Your task to perform on an android device: open app "Move to iOS" (install if not already installed) Image 0: 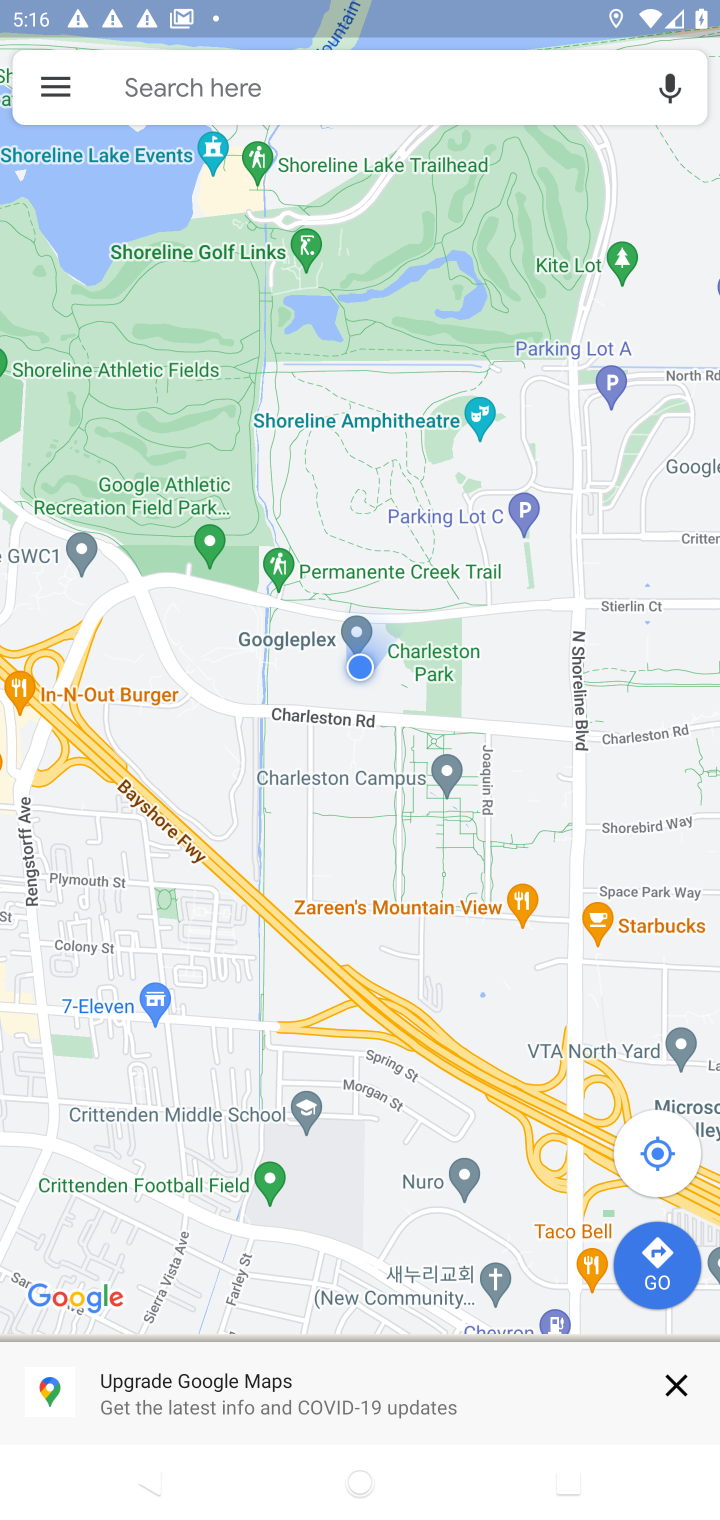
Step 0: press home button
Your task to perform on an android device: open app "Move to iOS" (install if not already installed) Image 1: 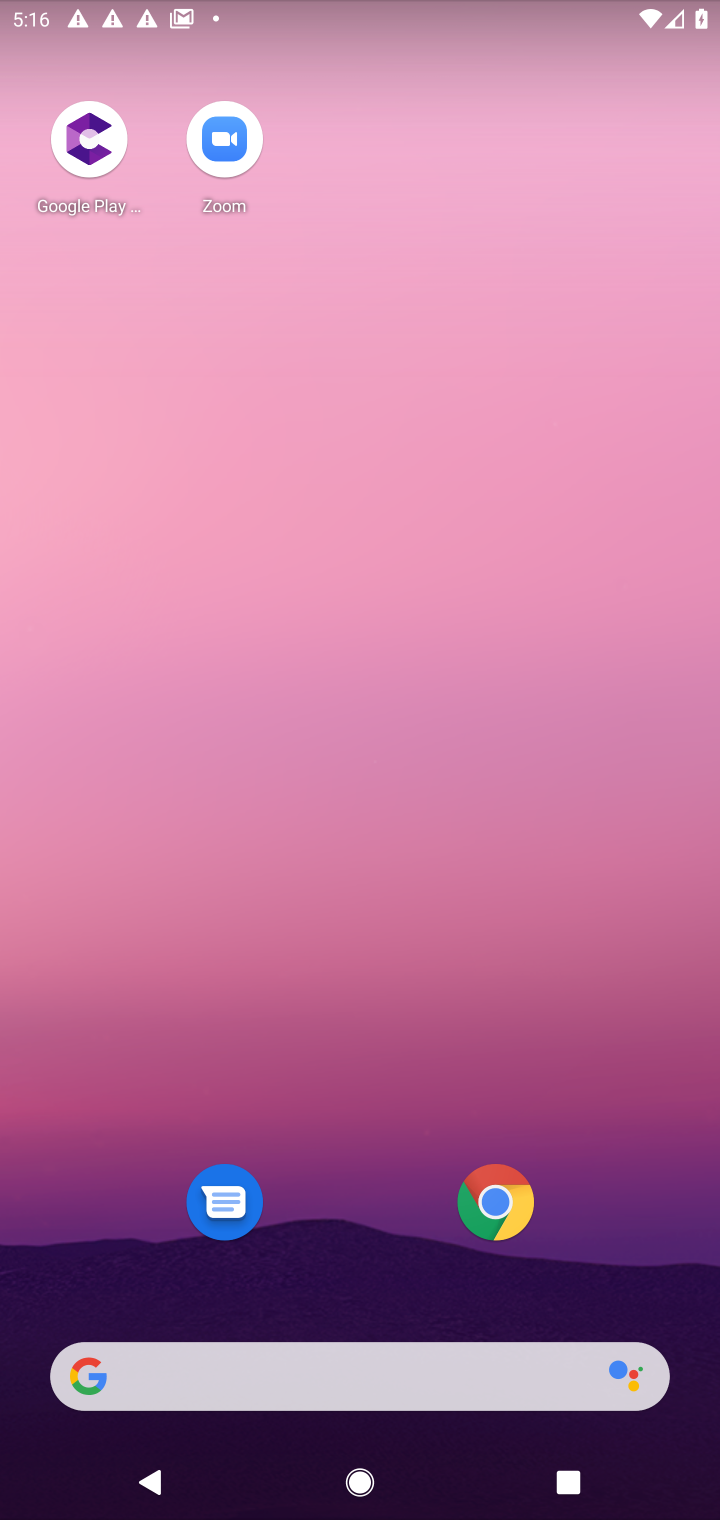
Step 1: drag from (312, 1391) to (397, 13)
Your task to perform on an android device: open app "Move to iOS" (install if not already installed) Image 2: 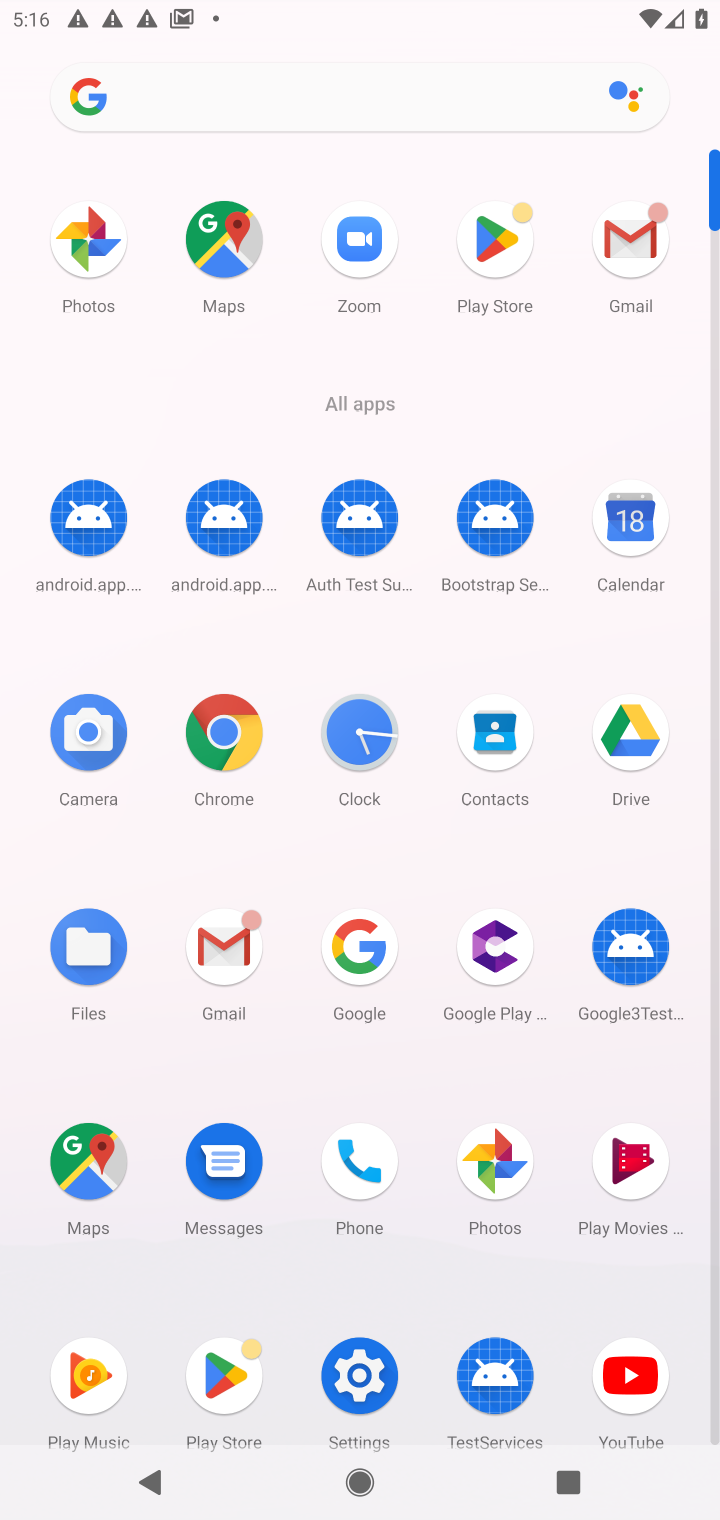
Step 2: click (510, 284)
Your task to perform on an android device: open app "Move to iOS" (install if not already installed) Image 3: 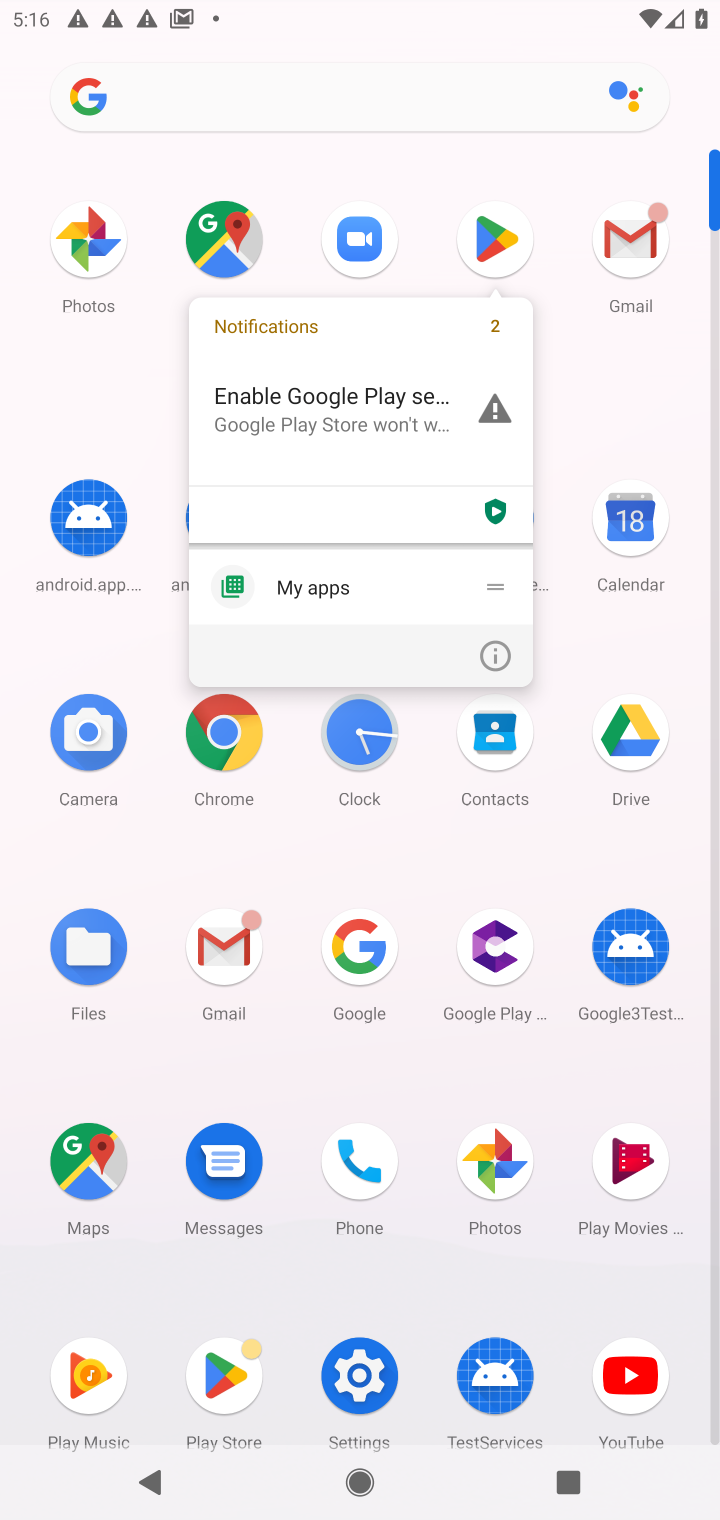
Step 3: click (510, 284)
Your task to perform on an android device: open app "Move to iOS" (install if not already installed) Image 4: 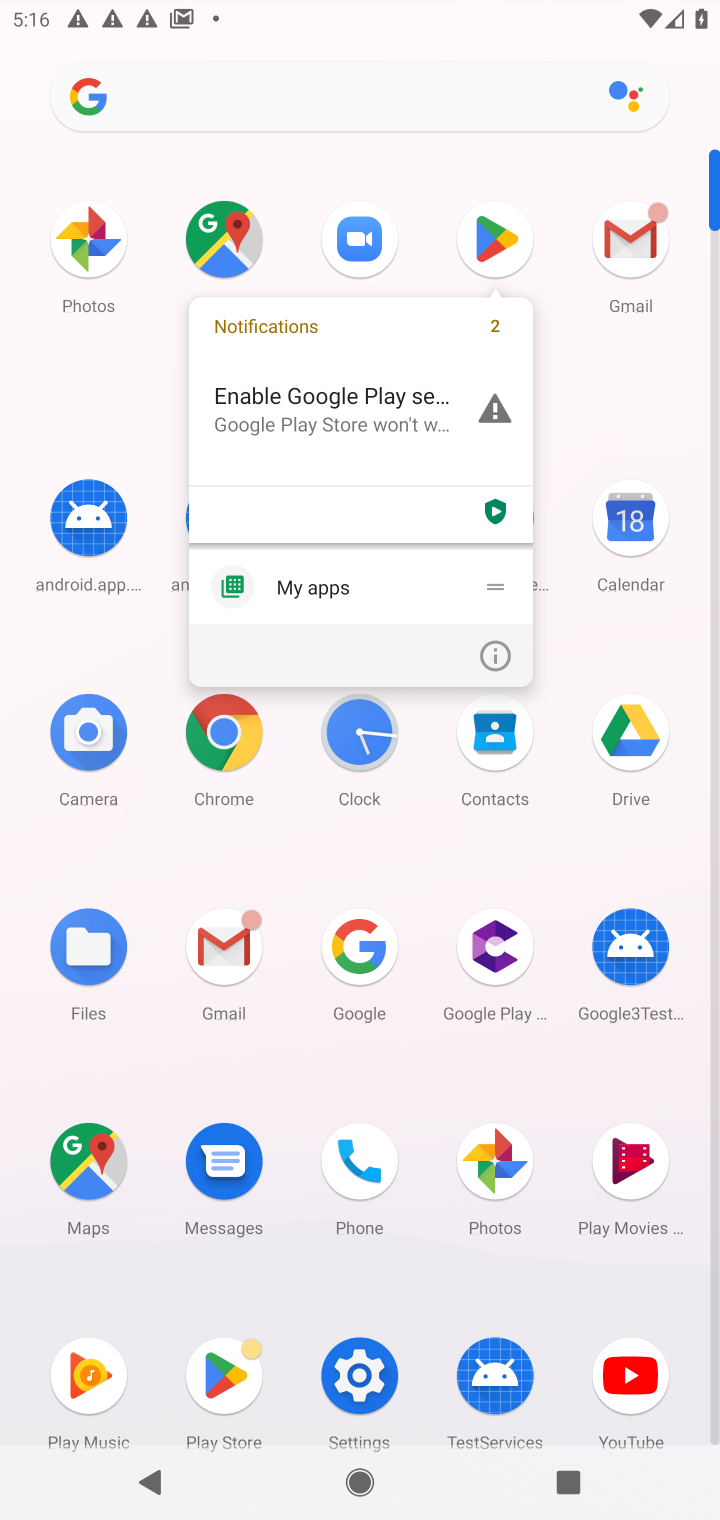
Step 4: click (479, 242)
Your task to perform on an android device: open app "Move to iOS" (install if not already installed) Image 5: 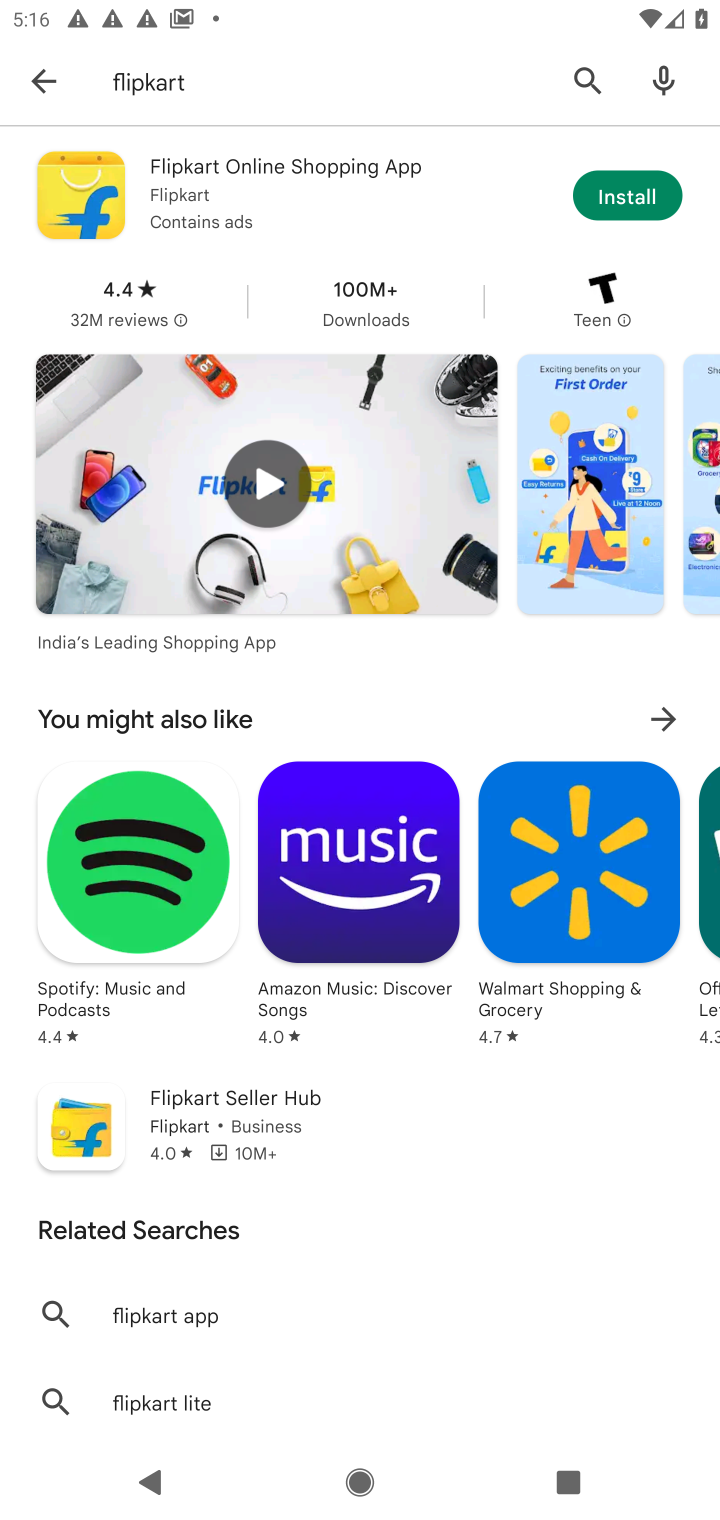
Step 5: click (594, 81)
Your task to perform on an android device: open app "Move to iOS" (install if not already installed) Image 6: 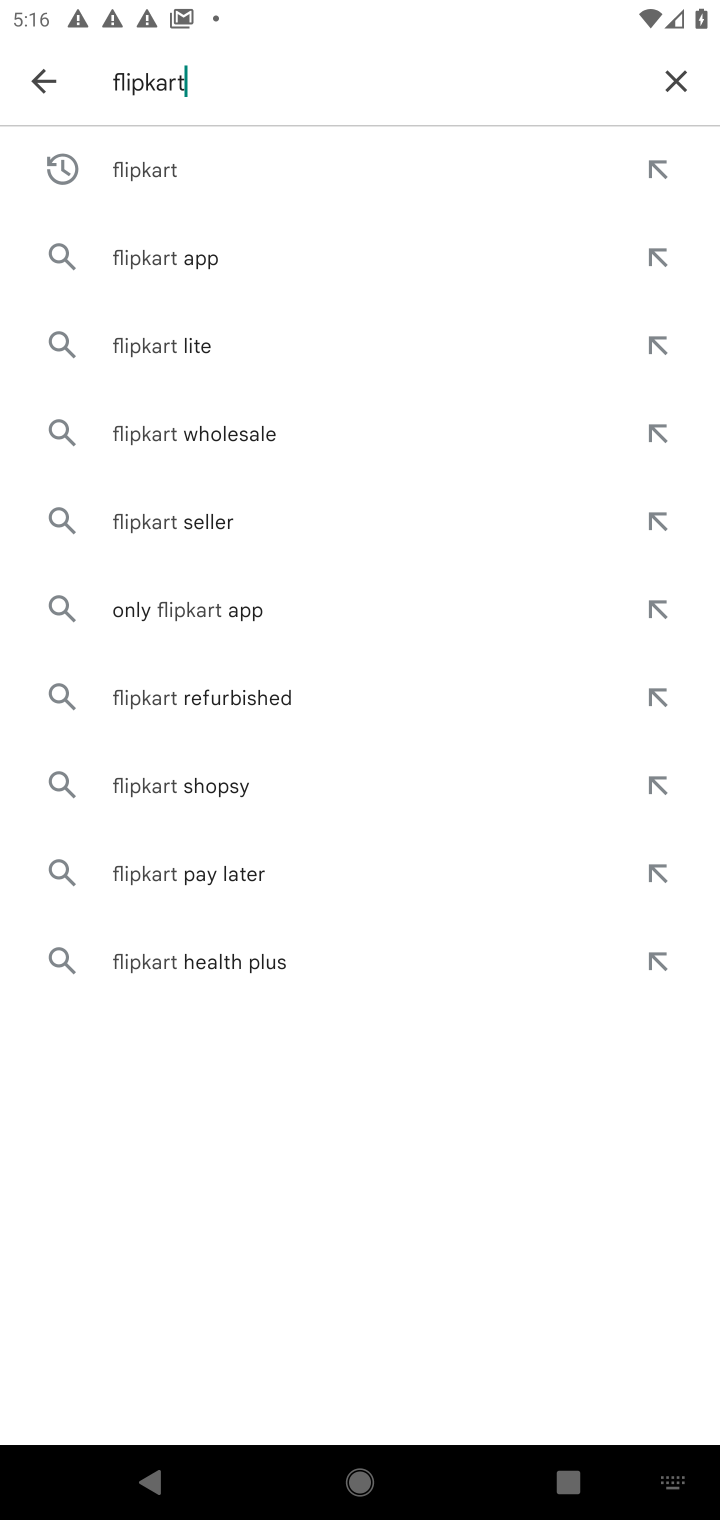
Step 6: click (670, 67)
Your task to perform on an android device: open app "Move to iOS" (install if not already installed) Image 7: 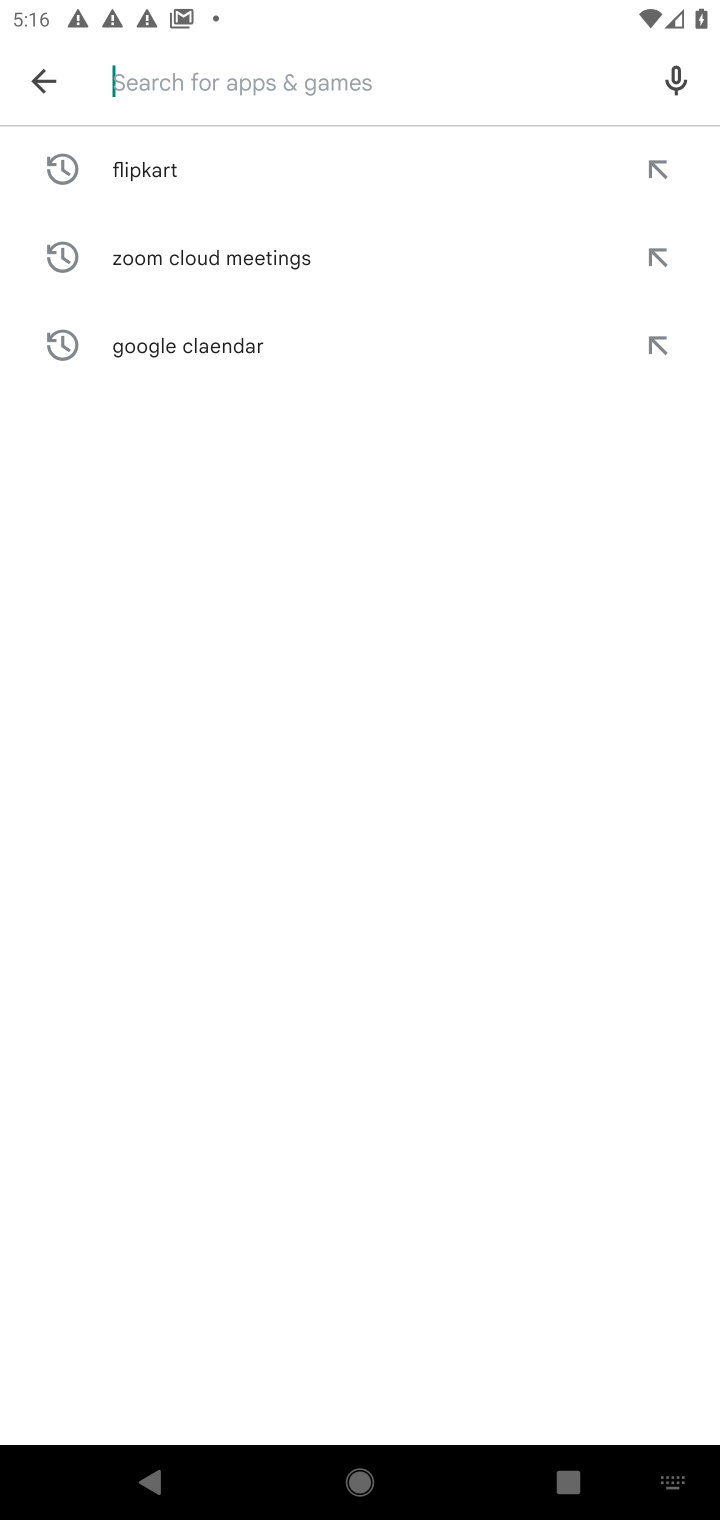
Step 7: type "move to ios"
Your task to perform on an android device: open app "Move to iOS" (install if not already installed) Image 8: 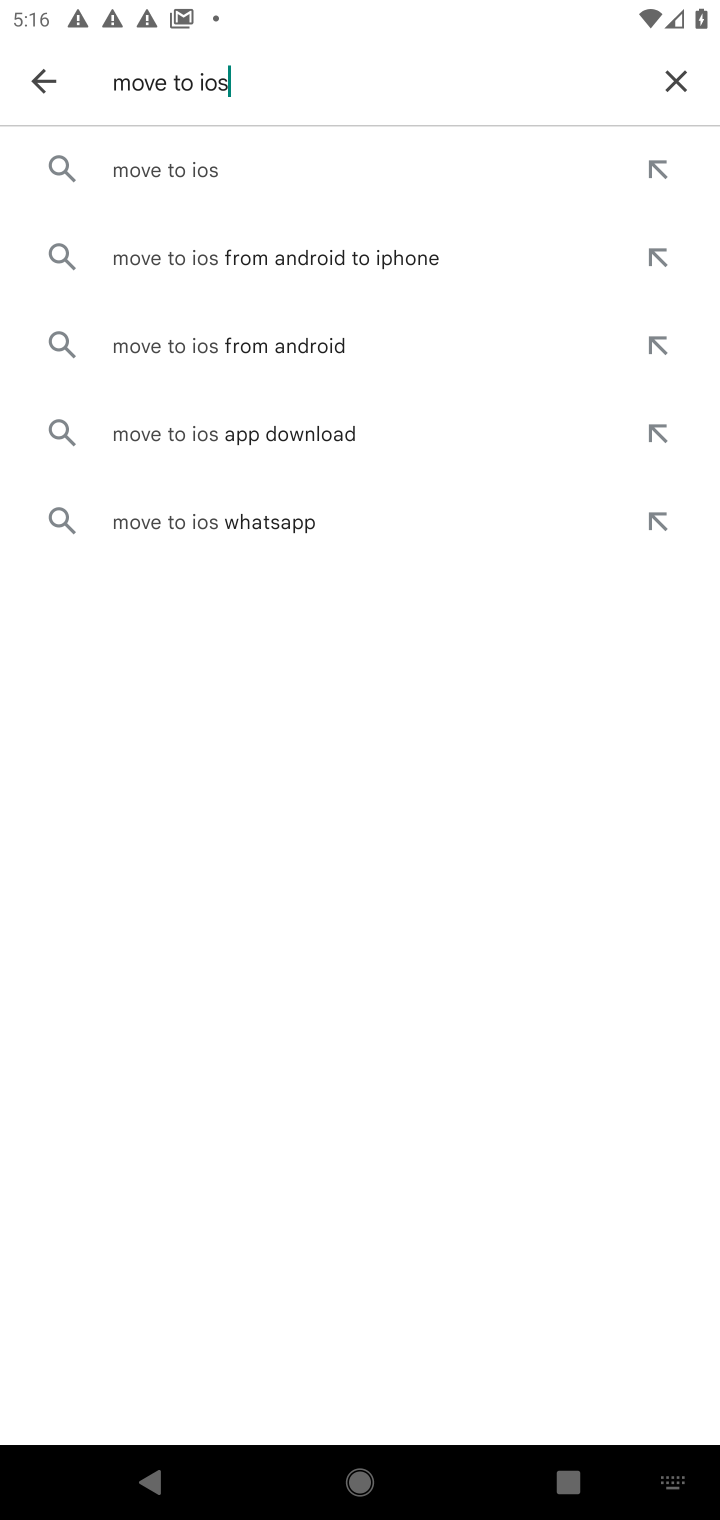
Step 8: click (218, 182)
Your task to perform on an android device: open app "Move to iOS" (install if not already installed) Image 9: 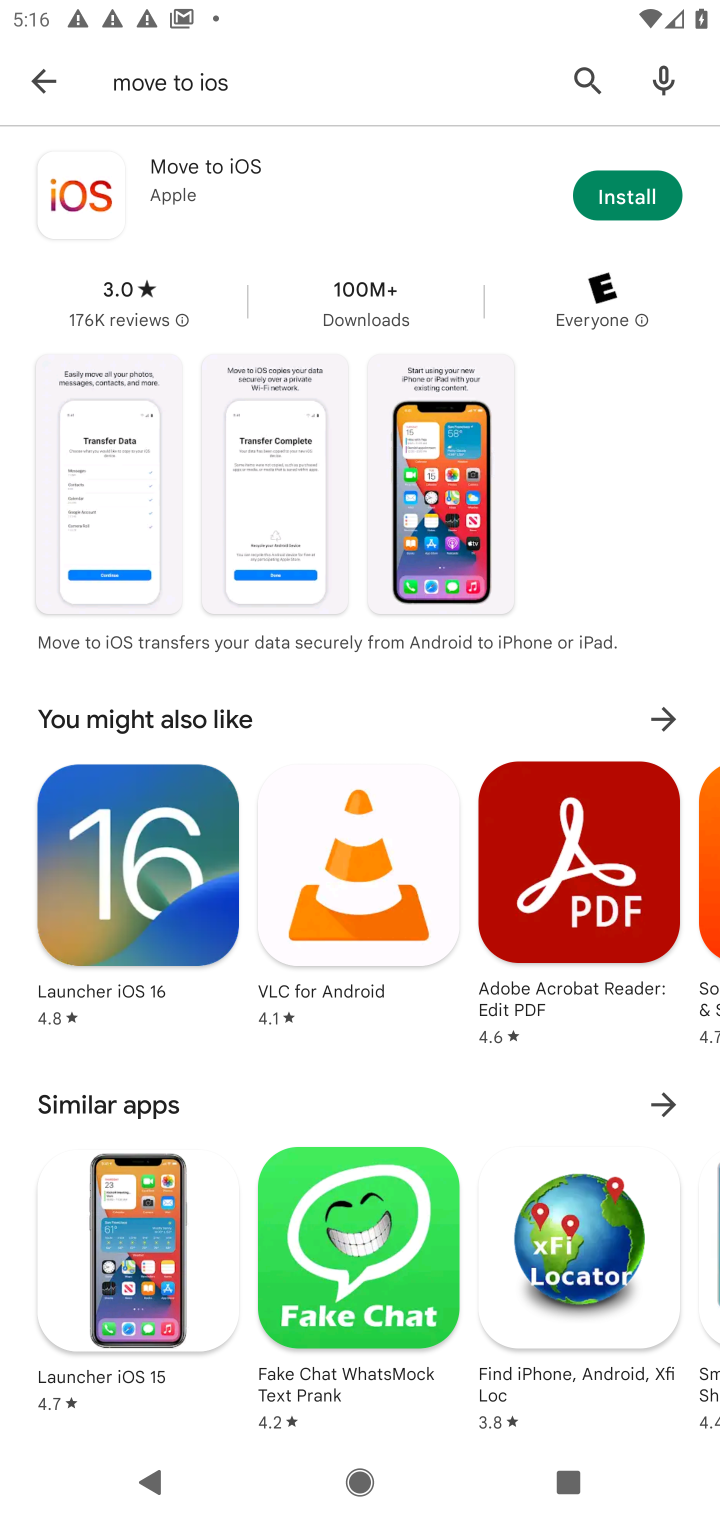
Step 9: click (585, 177)
Your task to perform on an android device: open app "Move to iOS" (install if not already installed) Image 10: 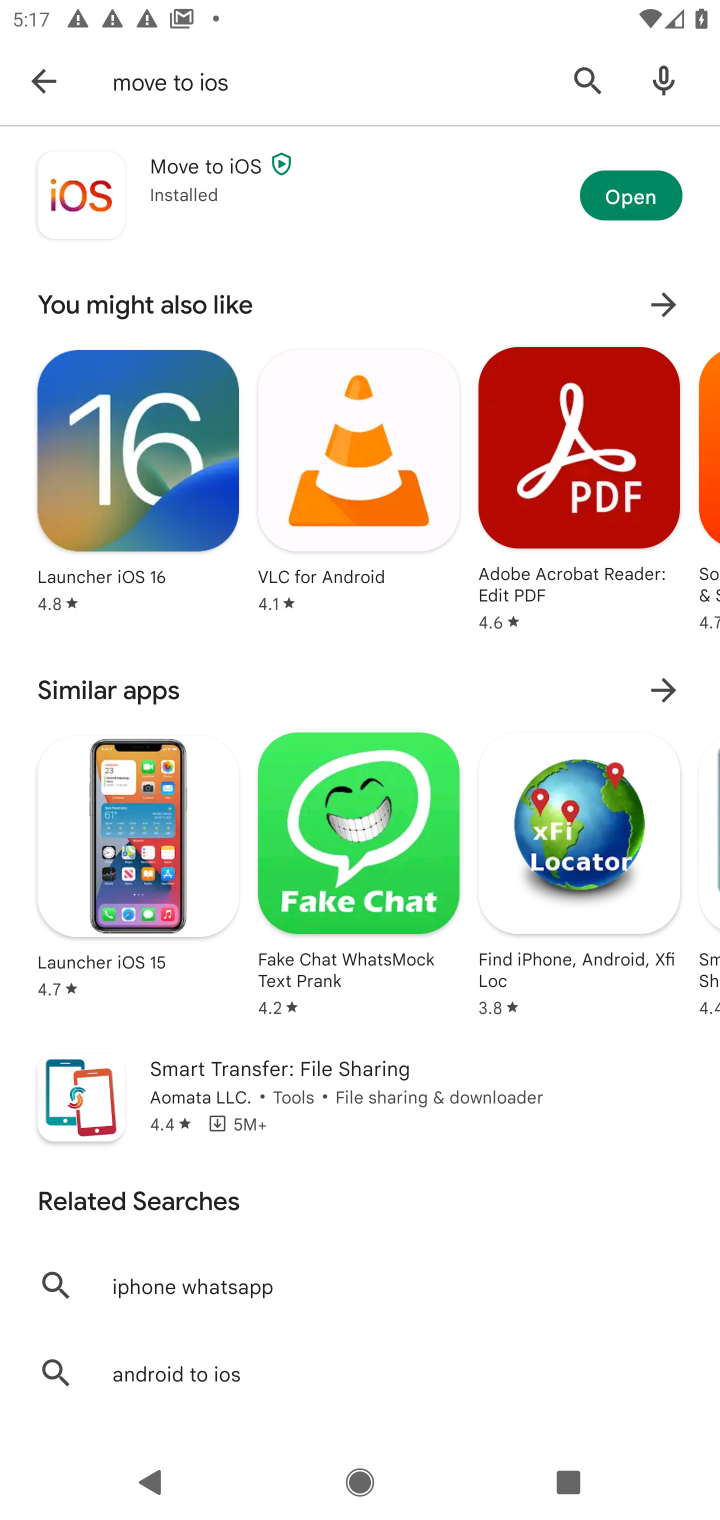
Step 10: click (602, 195)
Your task to perform on an android device: open app "Move to iOS" (install if not already installed) Image 11: 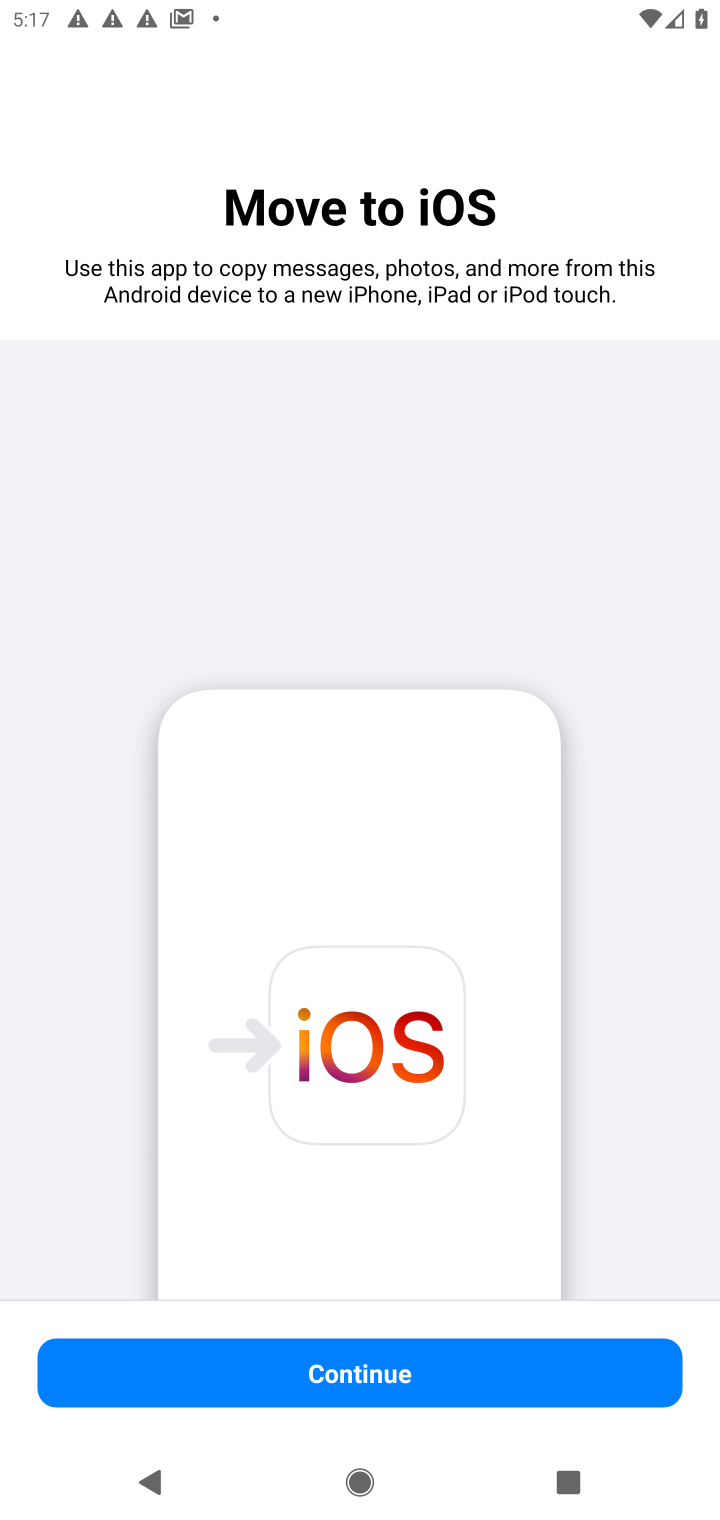
Step 11: task complete